Your task to perform on an android device: Is it going to rain today? Image 0: 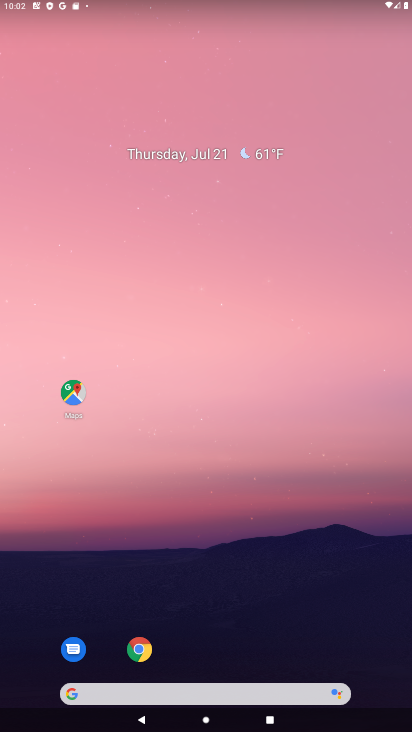
Step 0: drag from (208, 692) to (321, 31)
Your task to perform on an android device: Is it going to rain today? Image 1: 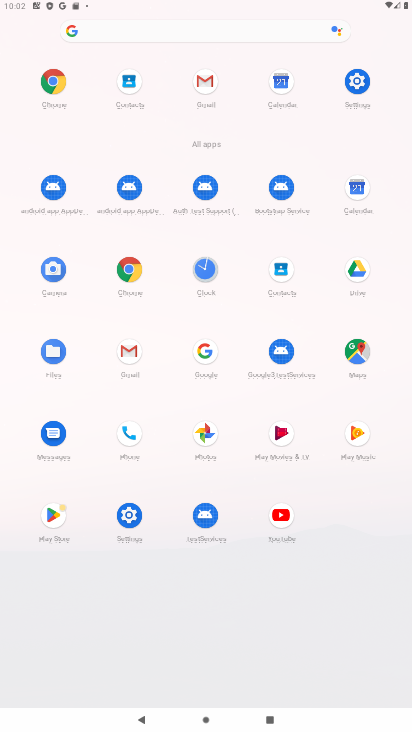
Step 1: click (206, 352)
Your task to perform on an android device: Is it going to rain today? Image 2: 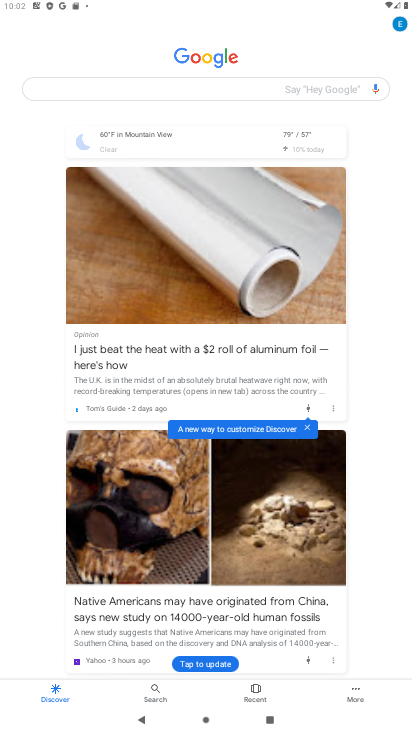
Step 2: click (164, 149)
Your task to perform on an android device: Is it going to rain today? Image 3: 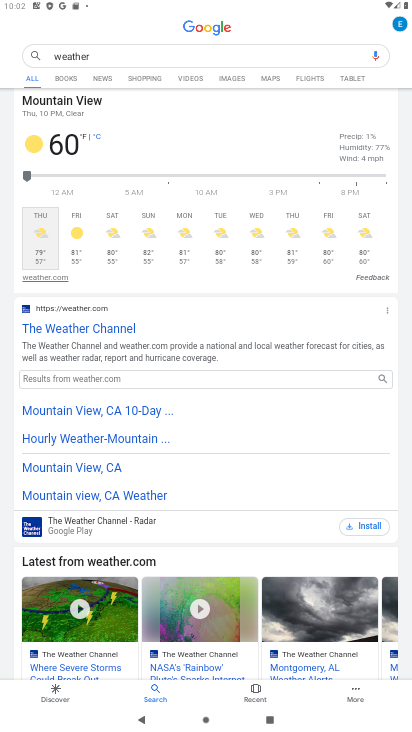
Step 3: task complete